Your task to perform on an android device: turn off data saver in the chrome app Image 0: 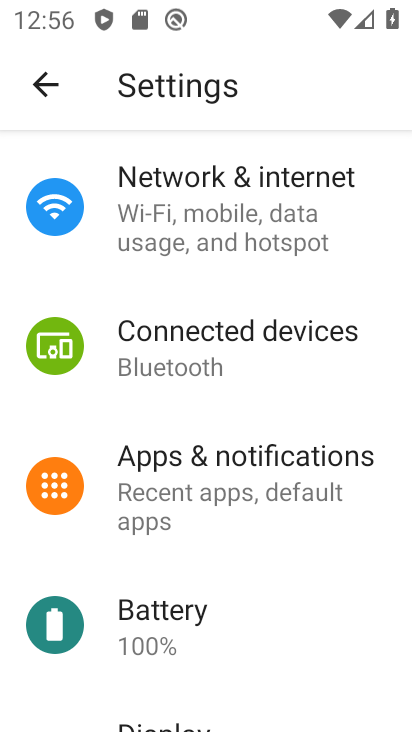
Step 0: press home button
Your task to perform on an android device: turn off data saver in the chrome app Image 1: 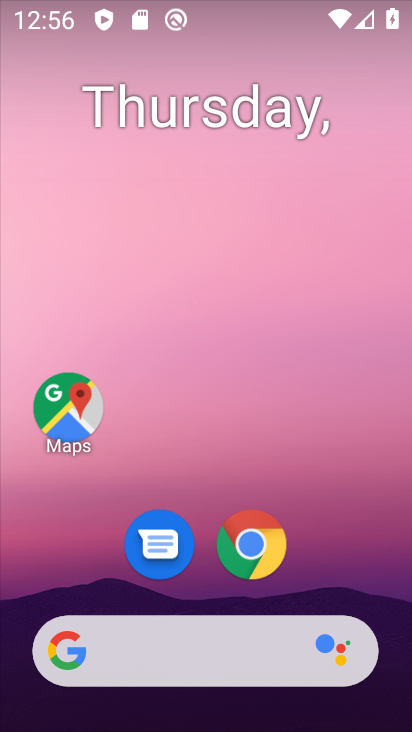
Step 1: click (259, 540)
Your task to perform on an android device: turn off data saver in the chrome app Image 2: 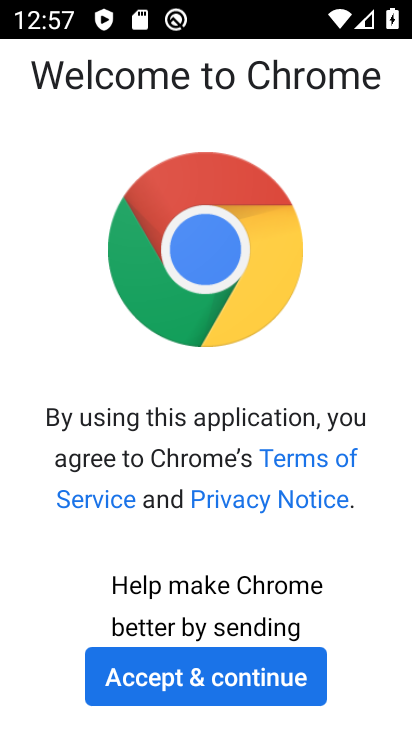
Step 2: click (204, 673)
Your task to perform on an android device: turn off data saver in the chrome app Image 3: 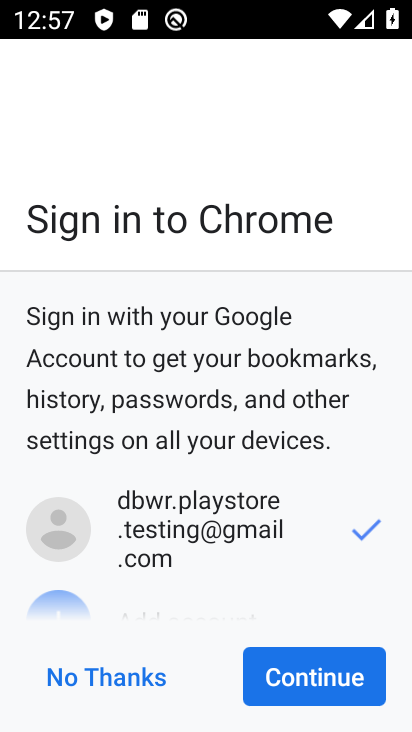
Step 3: click (295, 671)
Your task to perform on an android device: turn off data saver in the chrome app Image 4: 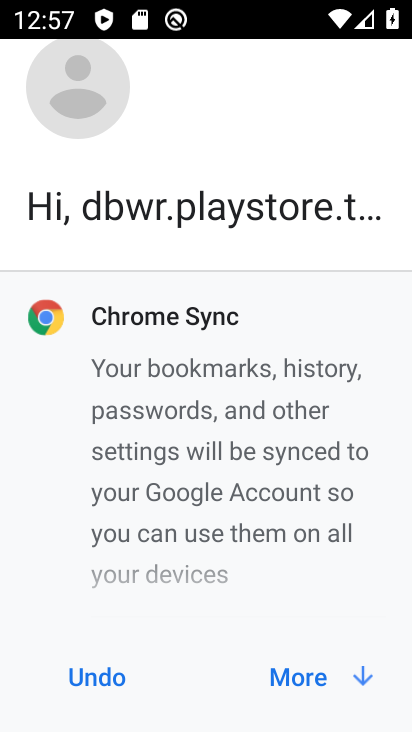
Step 4: click (301, 677)
Your task to perform on an android device: turn off data saver in the chrome app Image 5: 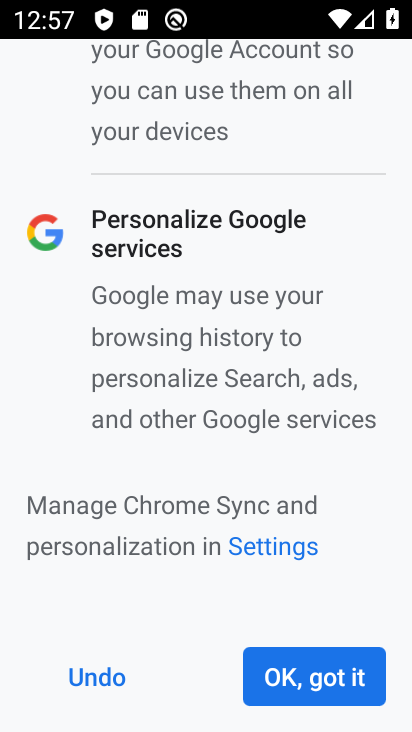
Step 5: click (301, 677)
Your task to perform on an android device: turn off data saver in the chrome app Image 6: 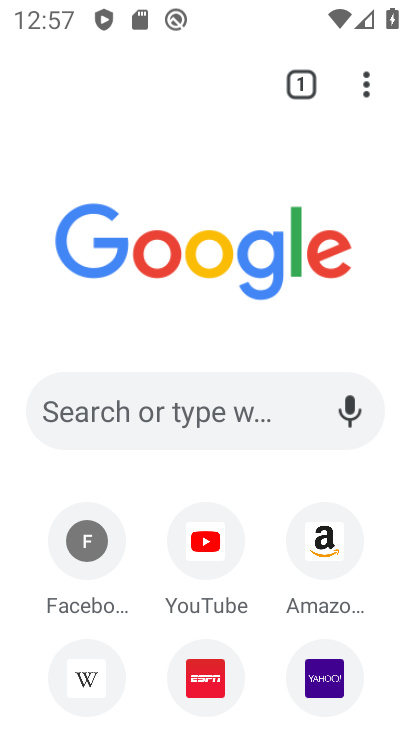
Step 6: click (366, 91)
Your task to perform on an android device: turn off data saver in the chrome app Image 7: 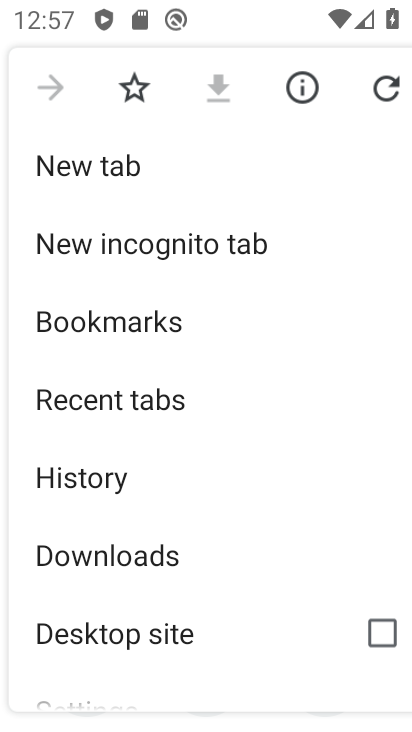
Step 7: drag from (115, 622) to (134, 127)
Your task to perform on an android device: turn off data saver in the chrome app Image 8: 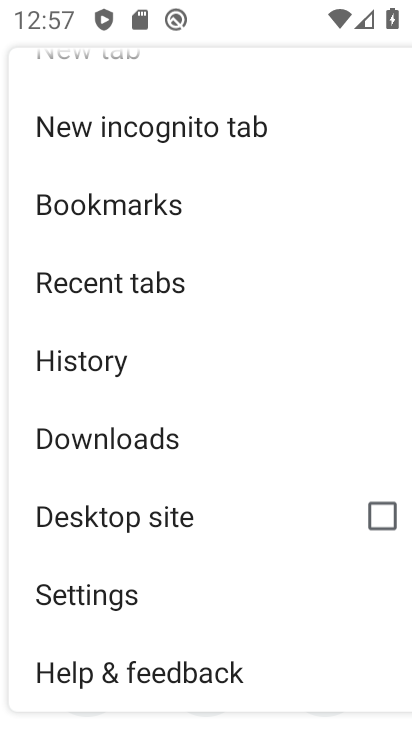
Step 8: click (106, 591)
Your task to perform on an android device: turn off data saver in the chrome app Image 9: 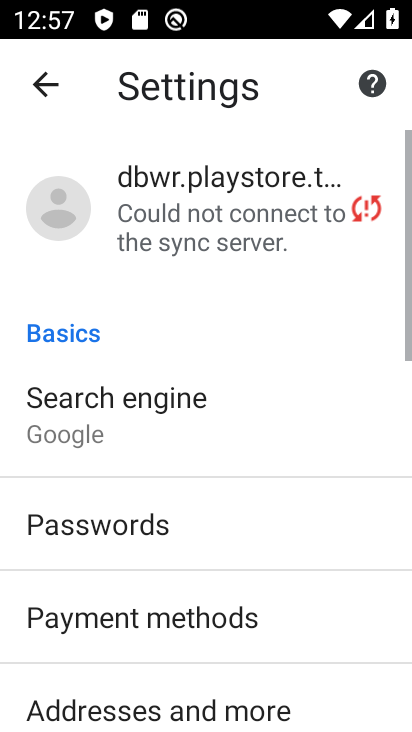
Step 9: drag from (122, 682) to (147, 204)
Your task to perform on an android device: turn off data saver in the chrome app Image 10: 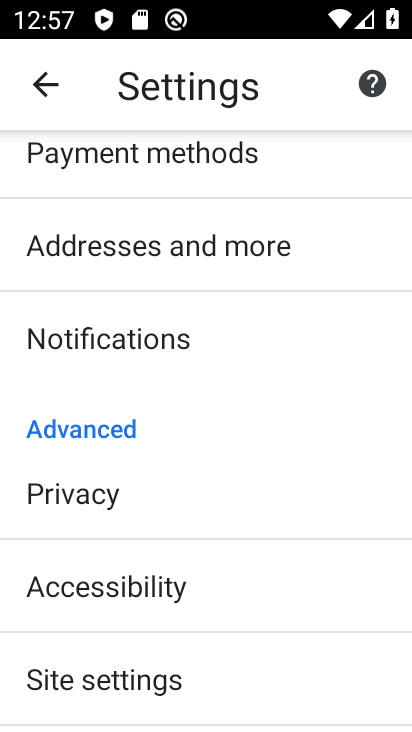
Step 10: drag from (117, 673) to (134, 249)
Your task to perform on an android device: turn off data saver in the chrome app Image 11: 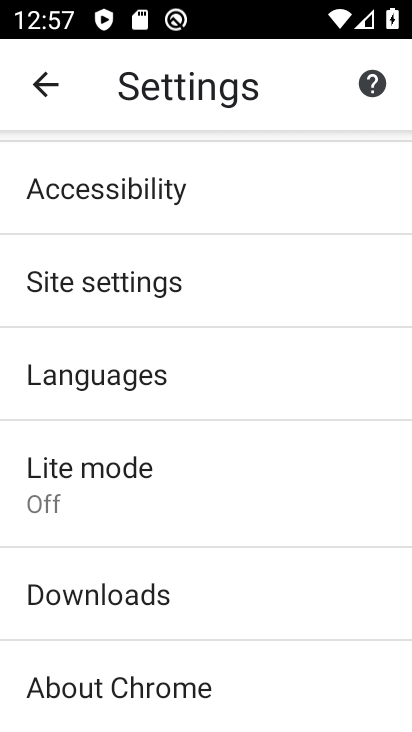
Step 11: click (96, 468)
Your task to perform on an android device: turn off data saver in the chrome app Image 12: 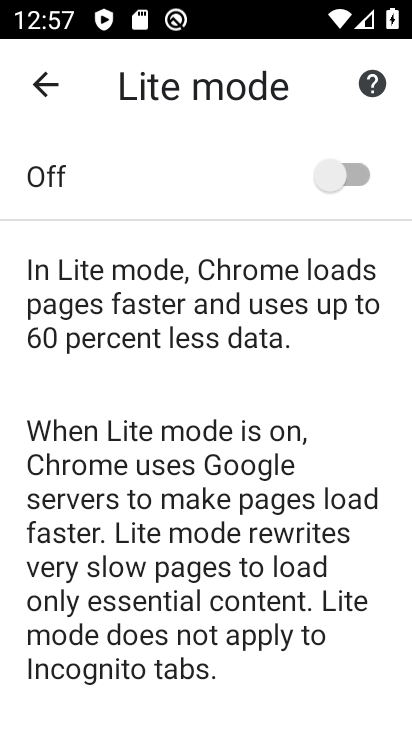
Step 12: task complete